Your task to perform on an android device: turn off airplane mode Image 0: 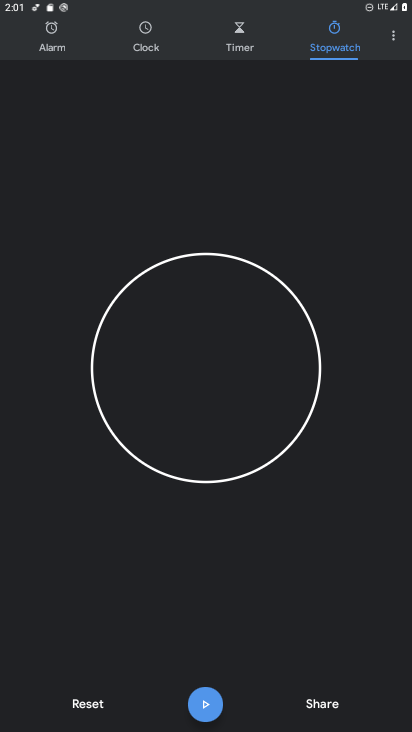
Step 0: press home button
Your task to perform on an android device: turn off airplane mode Image 1: 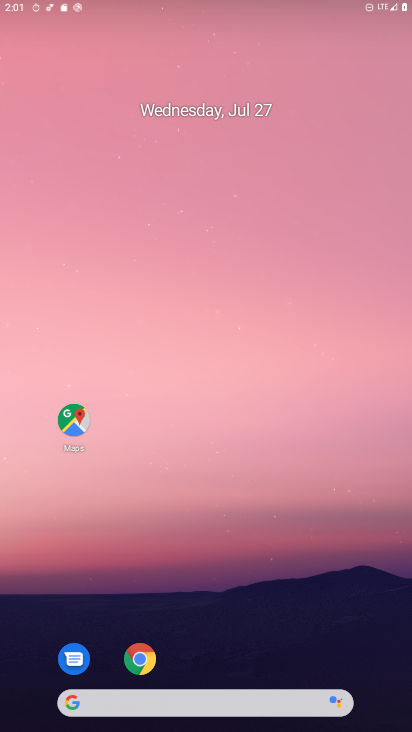
Step 1: drag from (318, 652) to (209, 68)
Your task to perform on an android device: turn off airplane mode Image 2: 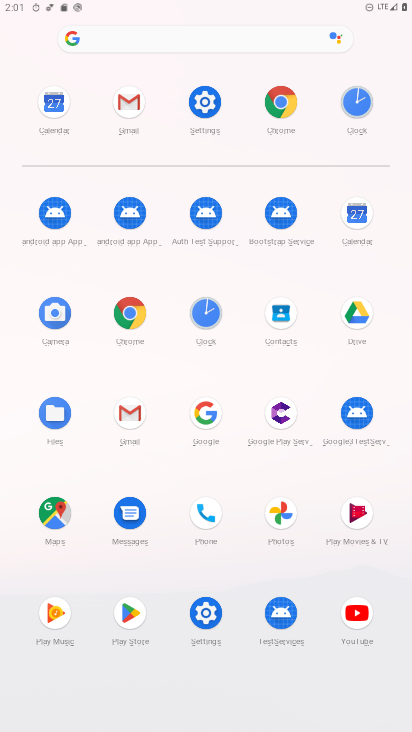
Step 2: click (217, 99)
Your task to perform on an android device: turn off airplane mode Image 3: 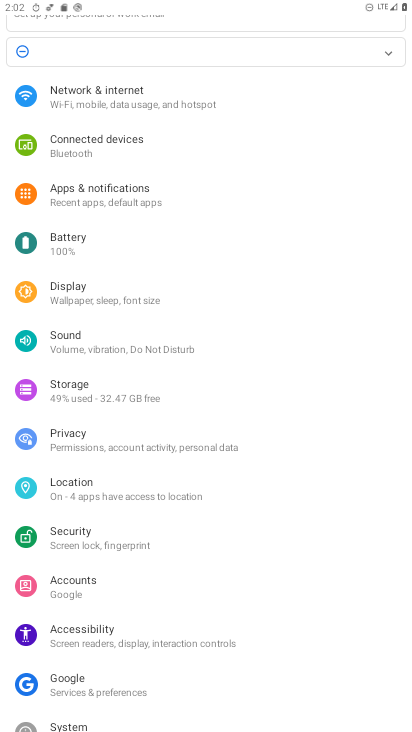
Step 3: click (144, 97)
Your task to perform on an android device: turn off airplane mode Image 4: 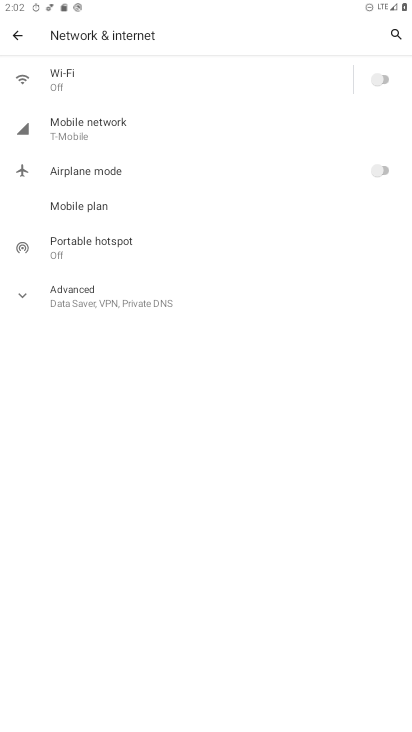
Step 4: task complete